Your task to perform on an android device: Open battery settings Image 0: 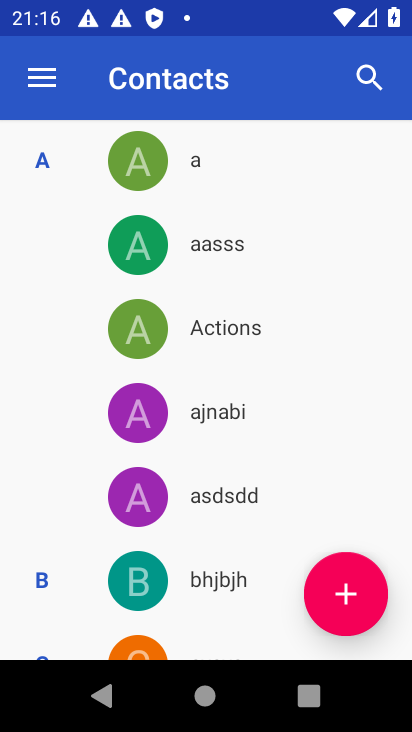
Step 0: press home button
Your task to perform on an android device: Open battery settings Image 1: 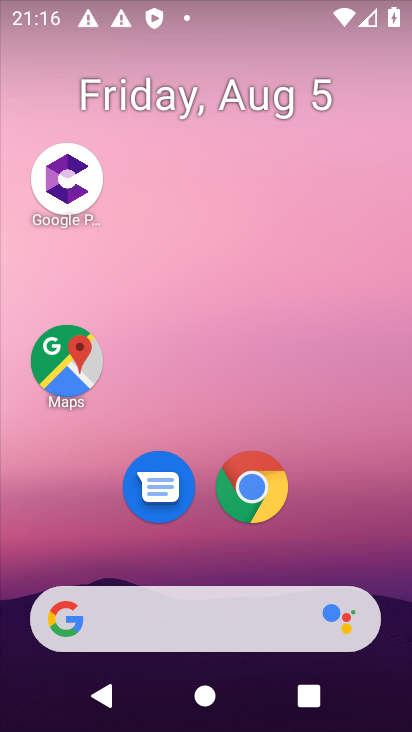
Step 1: drag from (222, 537) to (205, 6)
Your task to perform on an android device: Open battery settings Image 2: 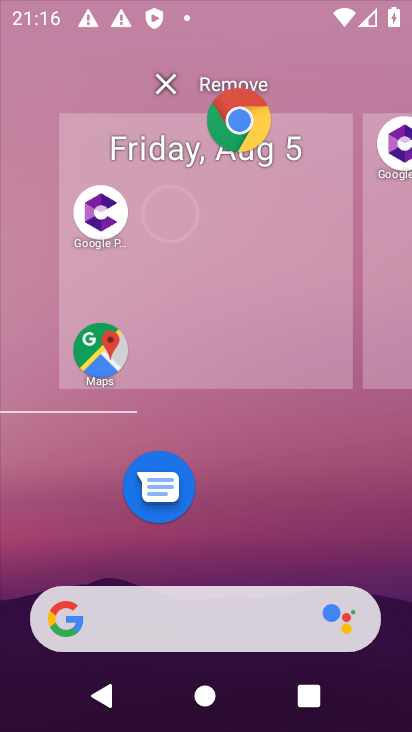
Step 2: click (276, 439)
Your task to perform on an android device: Open battery settings Image 3: 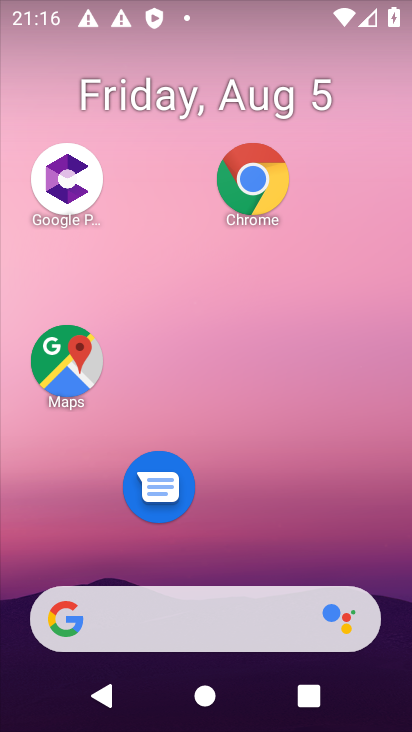
Step 3: drag from (288, 546) to (308, 0)
Your task to perform on an android device: Open battery settings Image 4: 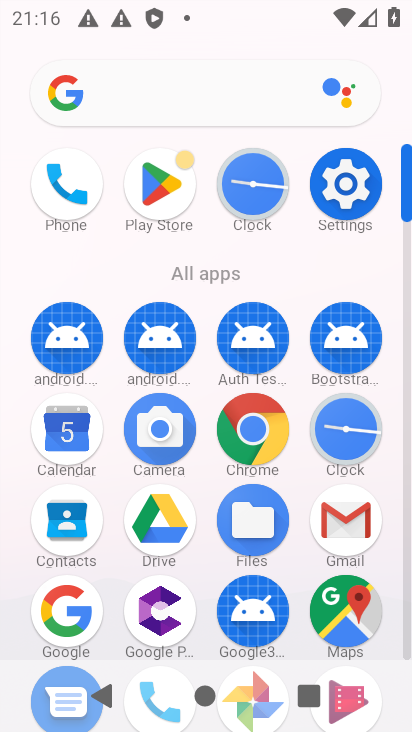
Step 4: click (357, 180)
Your task to perform on an android device: Open battery settings Image 5: 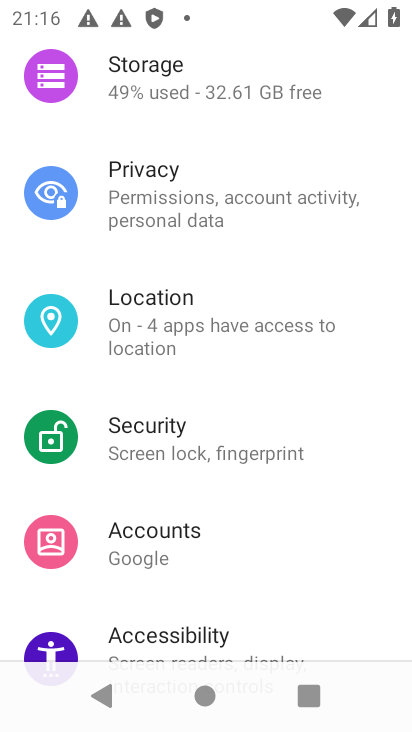
Step 5: drag from (288, 157) to (298, 668)
Your task to perform on an android device: Open battery settings Image 6: 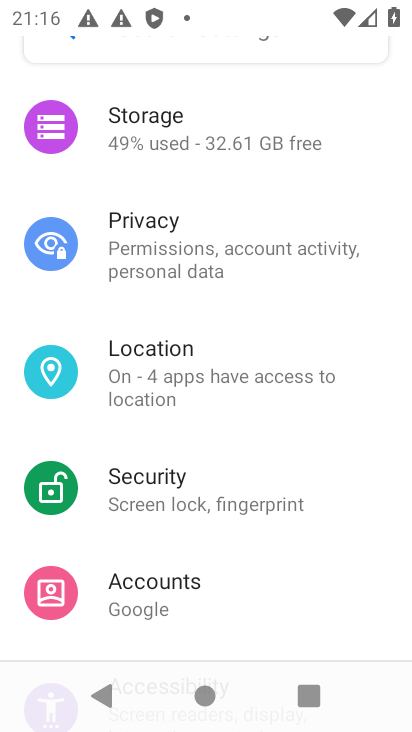
Step 6: drag from (286, 242) to (307, 592)
Your task to perform on an android device: Open battery settings Image 7: 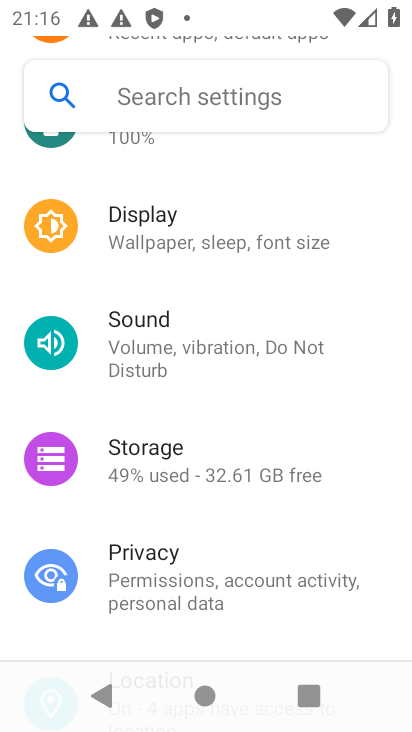
Step 7: click (109, 143)
Your task to perform on an android device: Open battery settings Image 8: 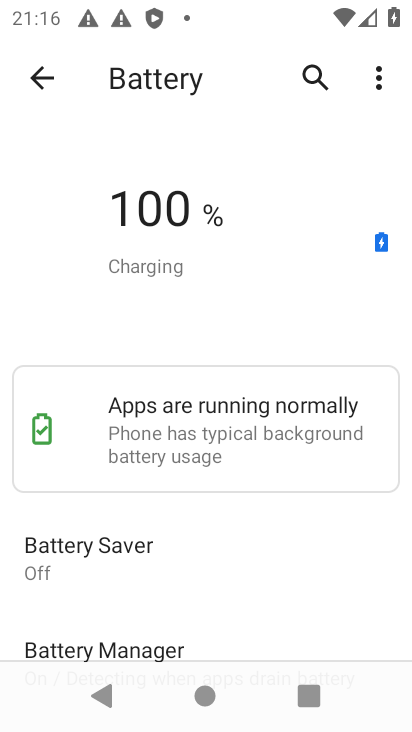
Step 8: task complete